Your task to perform on an android device: Go to settings Image 0: 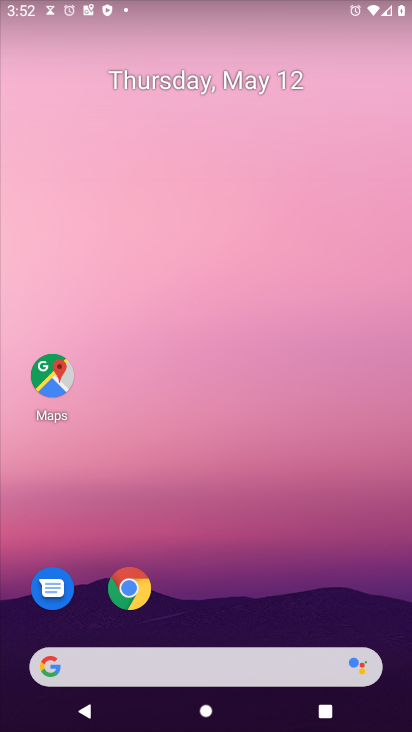
Step 0: drag from (278, 556) to (210, 46)
Your task to perform on an android device: Go to settings Image 1: 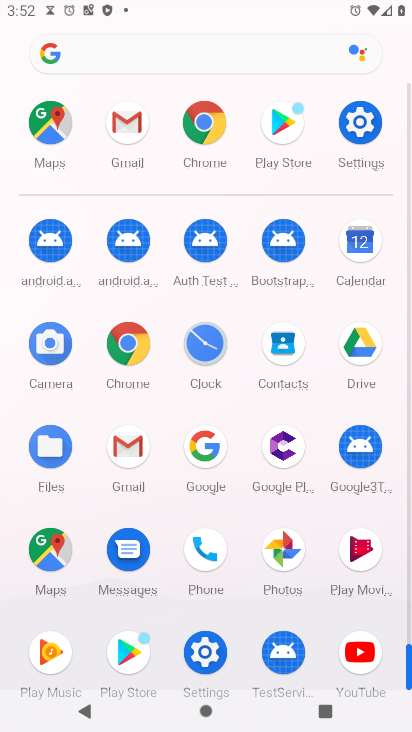
Step 1: click (206, 643)
Your task to perform on an android device: Go to settings Image 2: 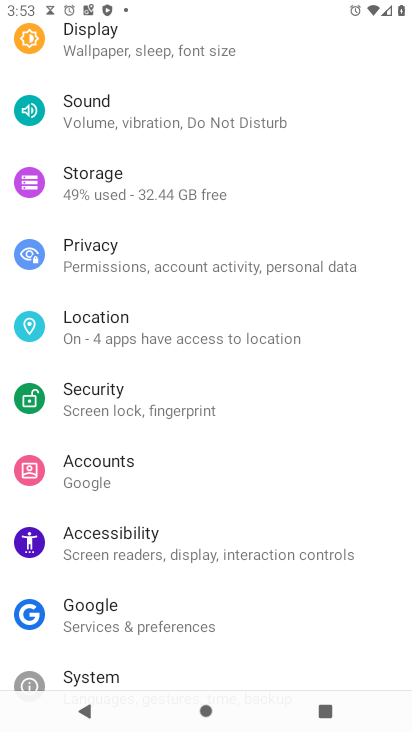
Step 2: task complete